Your task to perform on an android device: Open network settings Image 0: 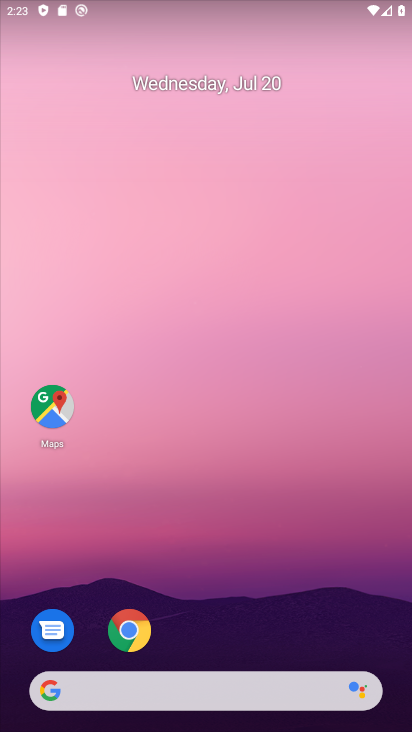
Step 0: drag from (214, 590) to (212, 200)
Your task to perform on an android device: Open network settings Image 1: 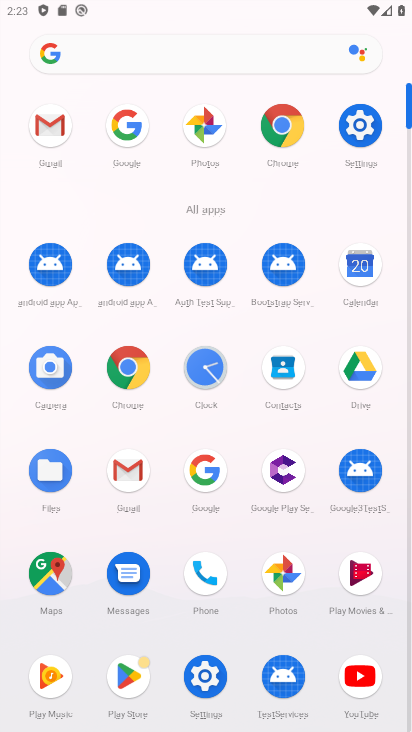
Step 1: click (350, 134)
Your task to perform on an android device: Open network settings Image 2: 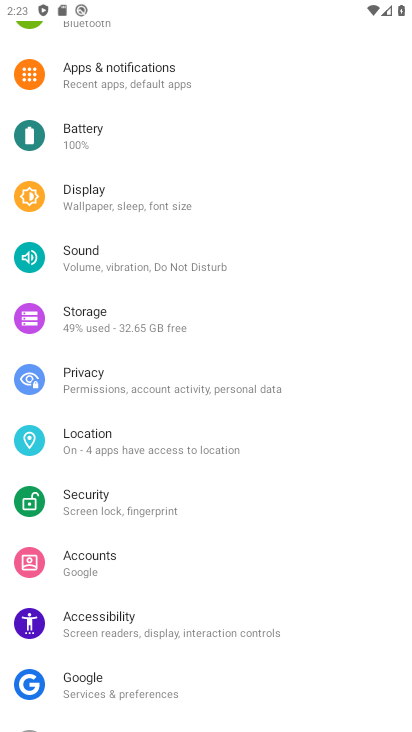
Step 2: drag from (162, 125) to (273, 426)
Your task to perform on an android device: Open network settings Image 3: 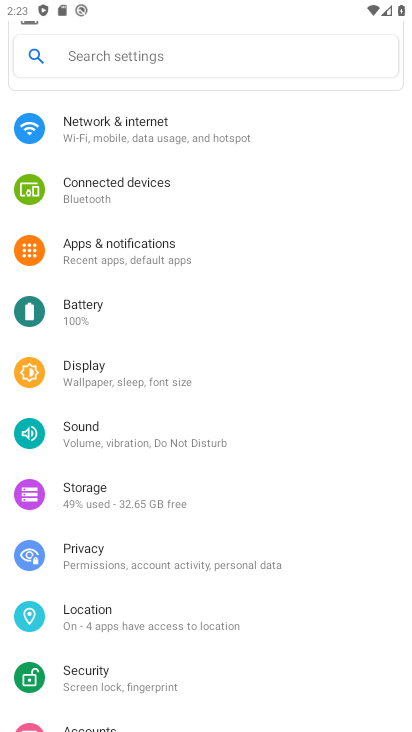
Step 3: click (289, 116)
Your task to perform on an android device: Open network settings Image 4: 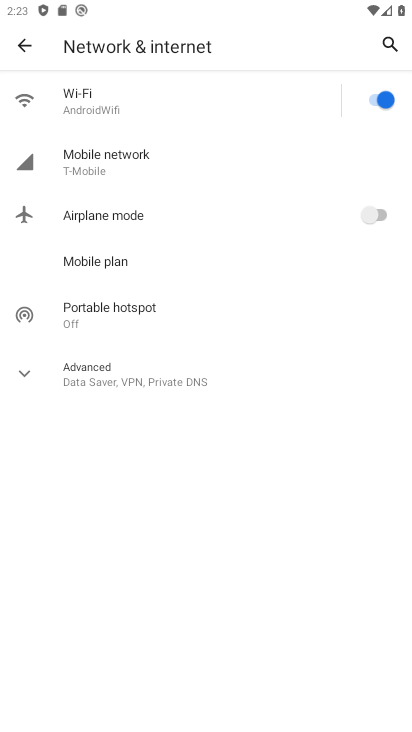
Step 4: click (305, 166)
Your task to perform on an android device: Open network settings Image 5: 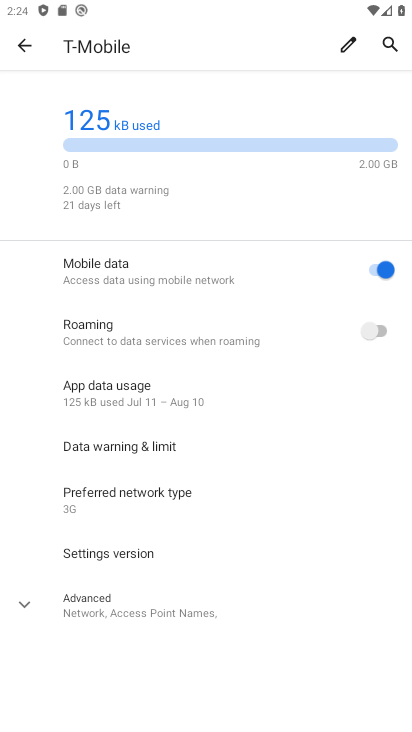
Step 5: task complete